Your task to perform on an android device: Search for Mexican restaurants on Maps Image 0: 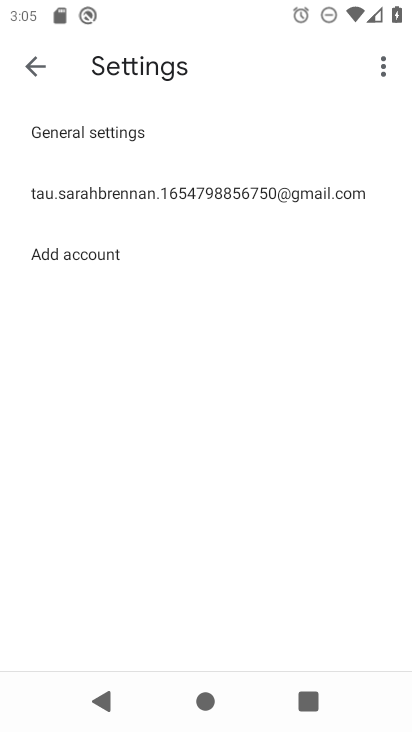
Step 0: press home button
Your task to perform on an android device: Search for Mexican restaurants on Maps Image 1: 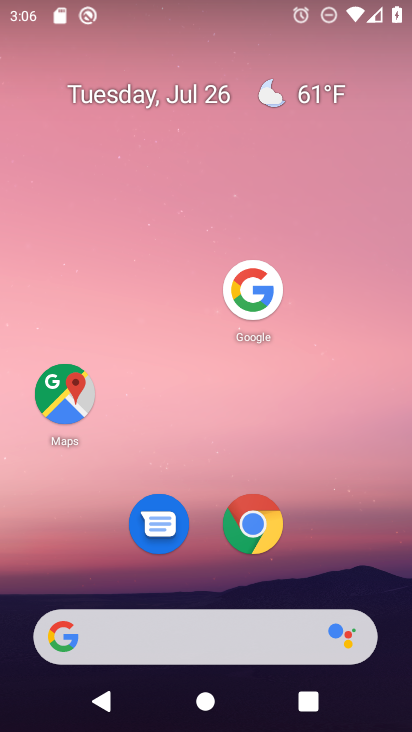
Step 1: click (74, 402)
Your task to perform on an android device: Search for Mexican restaurants on Maps Image 2: 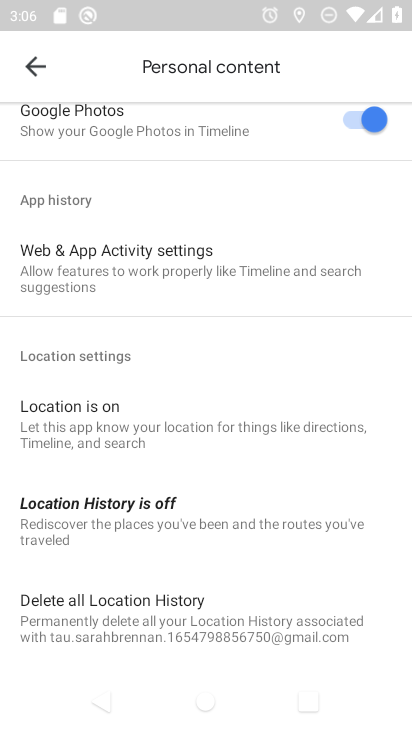
Step 2: click (50, 74)
Your task to perform on an android device: Search for Mexican restaurants on Maps Image 3: 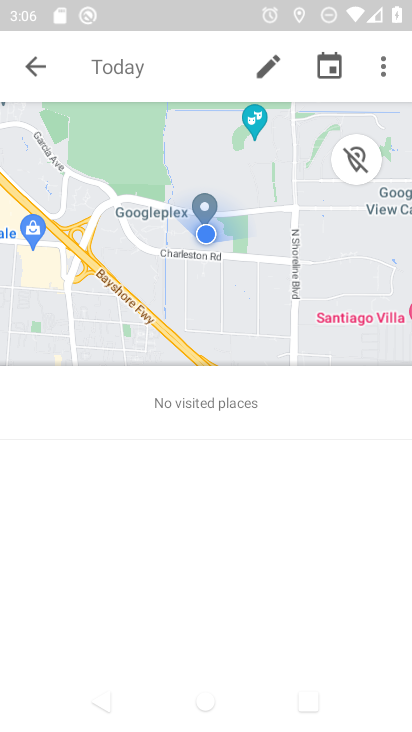
Step 3: click (34, 66)
Your task to perform on an android device: Search for Mexican restaurants on Maps Image 4: 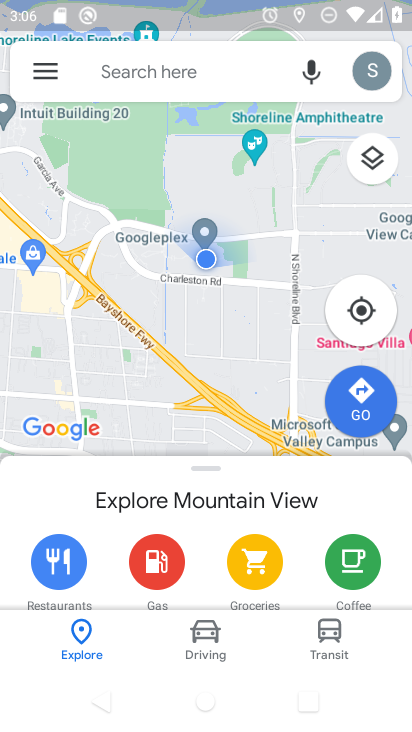
Step 4: click (160, 70)
Your task to perform on an android device: Search for Mexican restaurants on Maps Image 5: 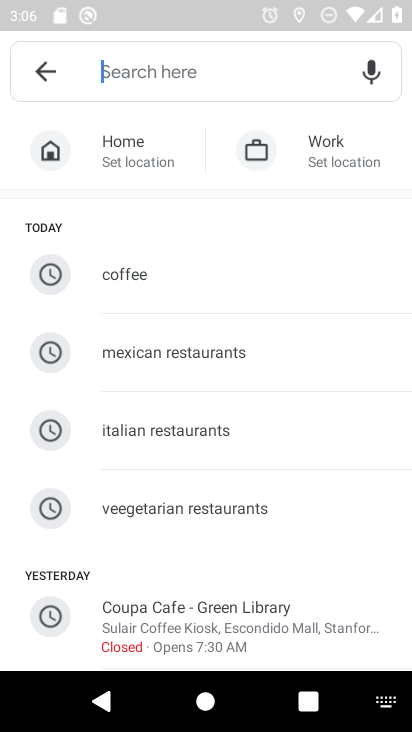
Step 5: click (212, 354)
Your task to perform on an android device: Search for Mexican restaurants on Maps Image 6: 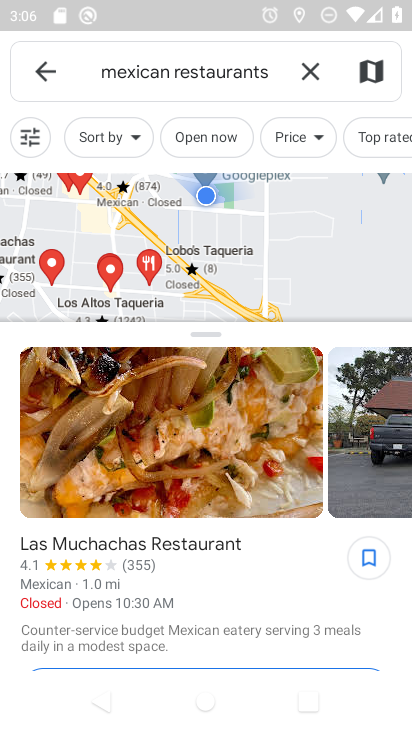
Step 6: task complete